Your task to perform on an android device: toggle sleep mode Image 0: 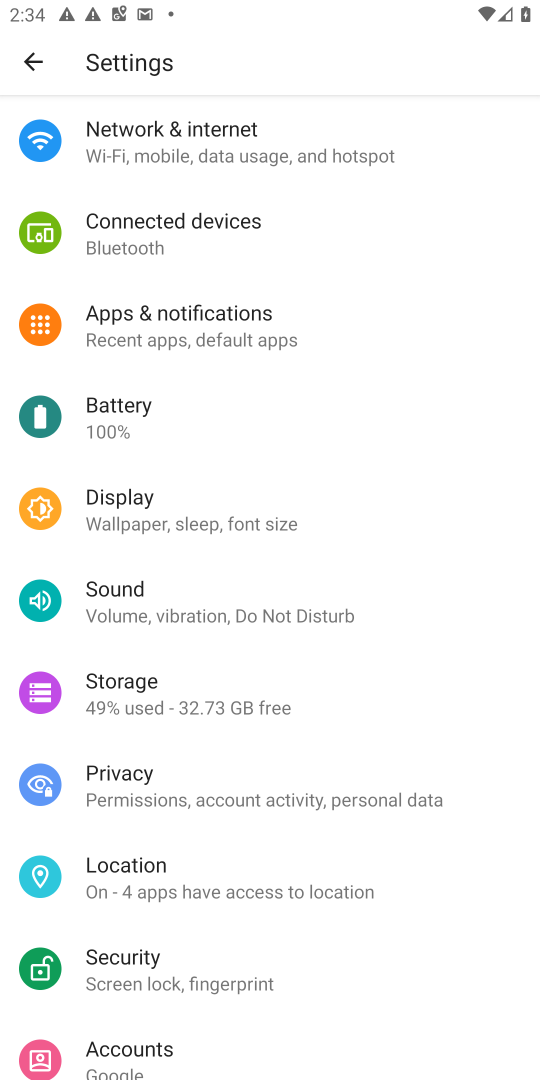
Step 0: drag from (297, 6) to (362, 606)
Your task to perform on an android device: toggle sleep mode Image 1: 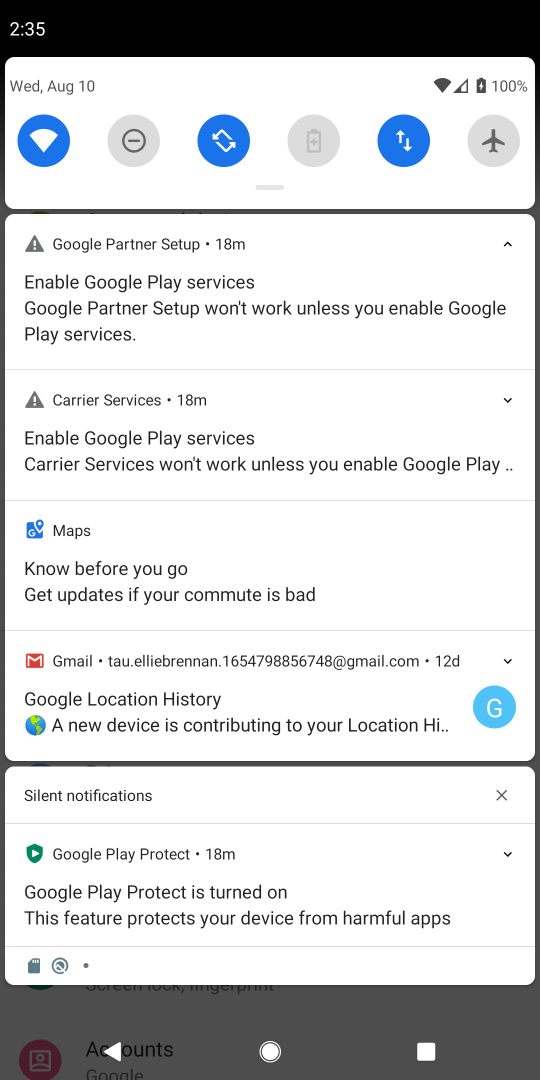
Step 1: click (140, 144)
Your task to perform on an android device: toggle sleep mode Image 2: 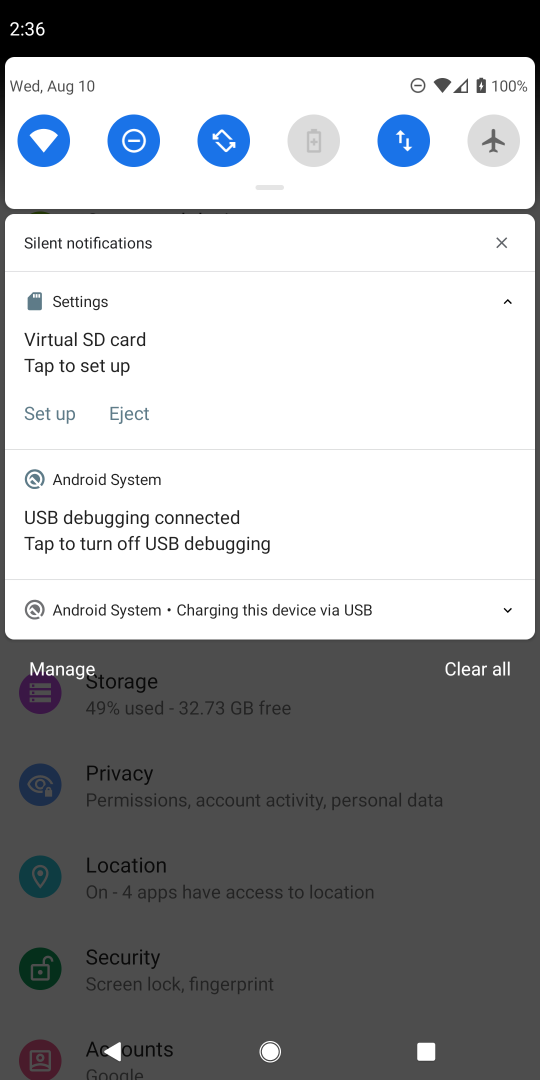
Step 2: task complete